Your task to perform on an android device: Open Amazon Image 0: 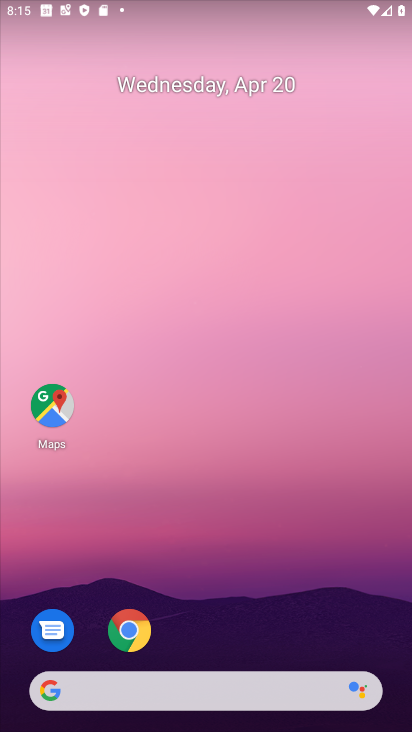
Step 0: click (135, 623)
Your task to perform on an android device: Open Amazon Image 1: 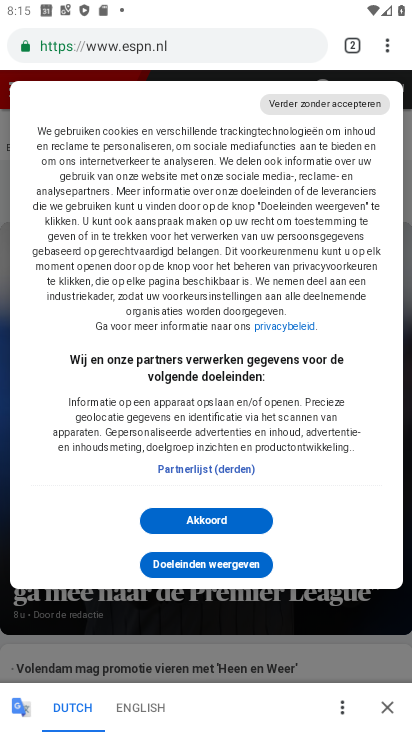
Step 1: click (355, 43)
Your task to perform on an android device: Open Amazon Image 2: 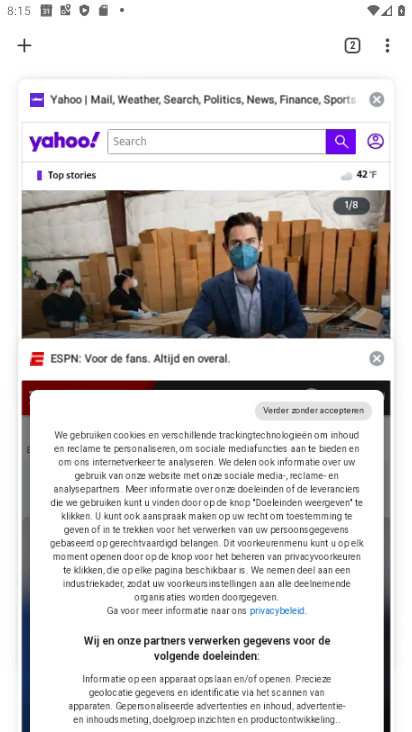
Step 2: click (16, 41)
Your task to perform on an android device: Open Amazon Image 3: 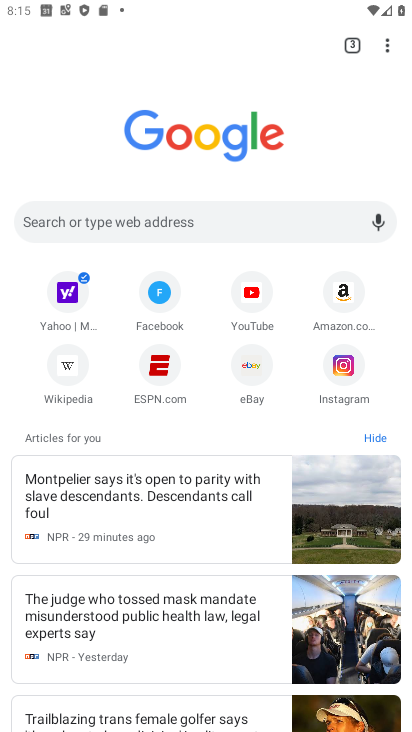
Step 3: click (348, 302)
Your task to perform on an android device: Open Amazon Image 4: 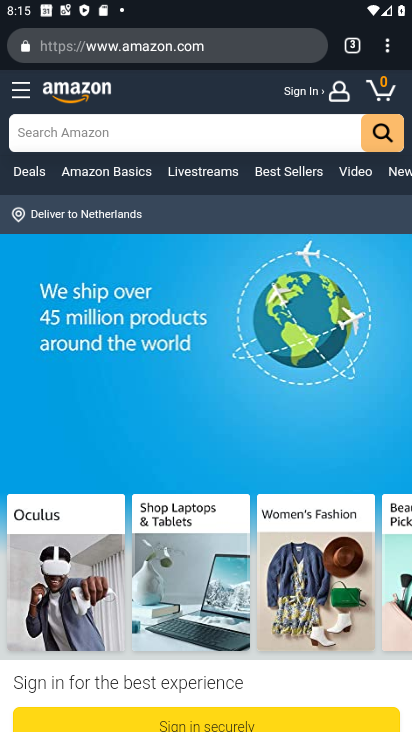
Step 4: task complete